Your task to perform on an android device: Find coffee shops on Maps Image 0: 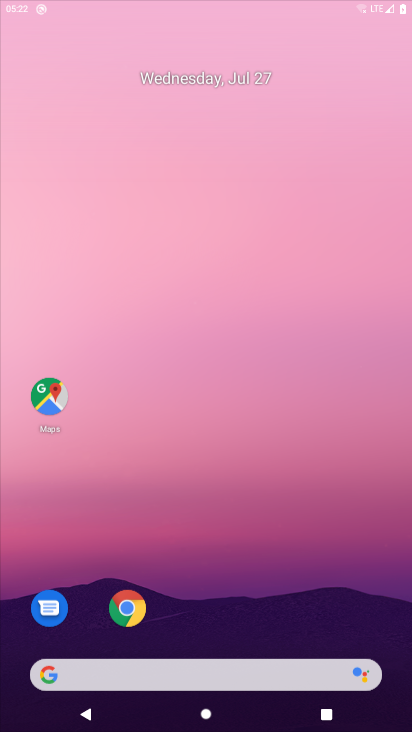
Step 0: press home button
Your task to perform on an android device: Find coffee shops on Maps Image 1: 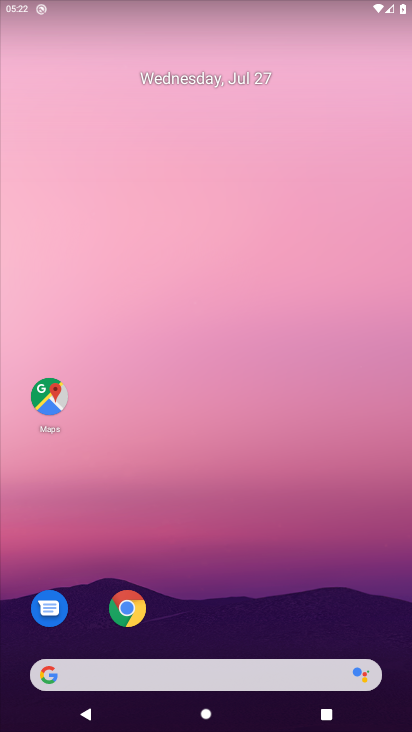
Step 1: click (58, 412)
Your task to perform on an android device: Find coffee shops on Maps Image 2: 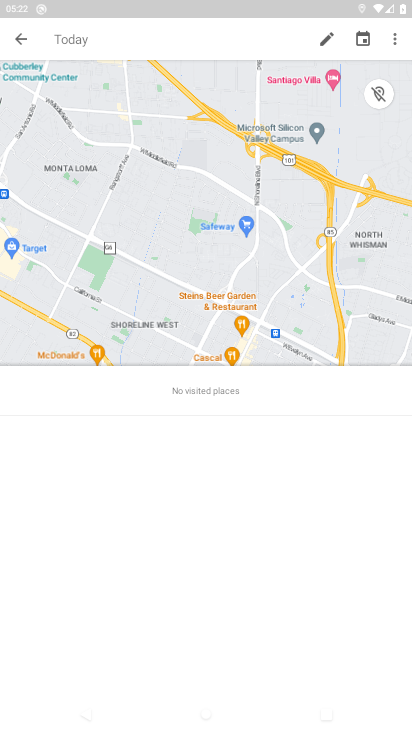
Step 2: click (15, 41)
Your task to perform on an android device: Find coffee shops on Maps Image 3: 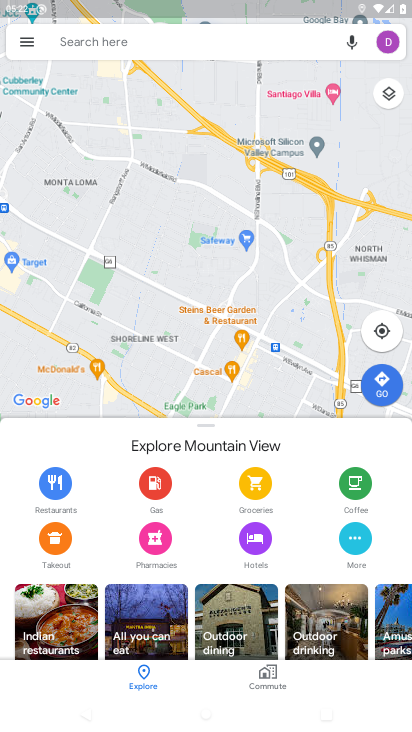
Step 3: click (126, 35)
Your task to perform on an android device: Find coffee shops on Maps Image 4: 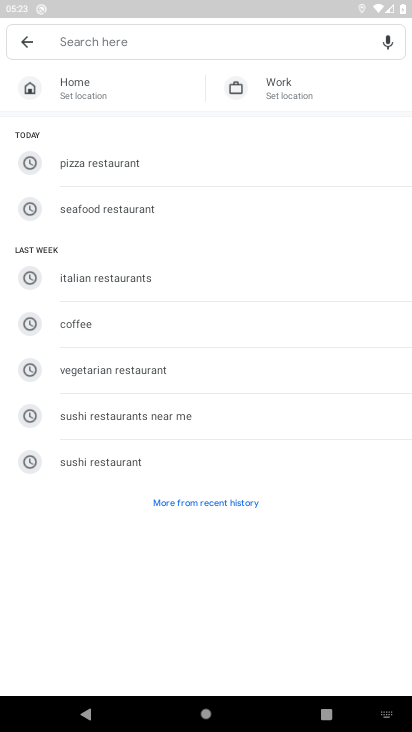
Step 4: press enter
Your task to perform on an android device: Find coffee shops on Maps Image 5: 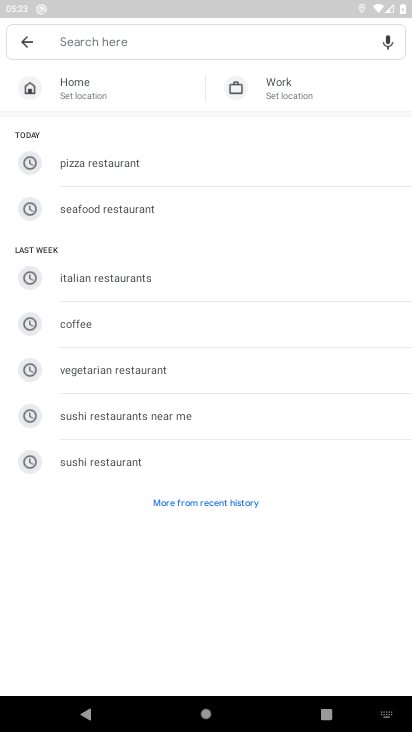
Step 5: type " coffee shops"
Your task to perform on an android device: Find coffee shops on Maps Image 6: 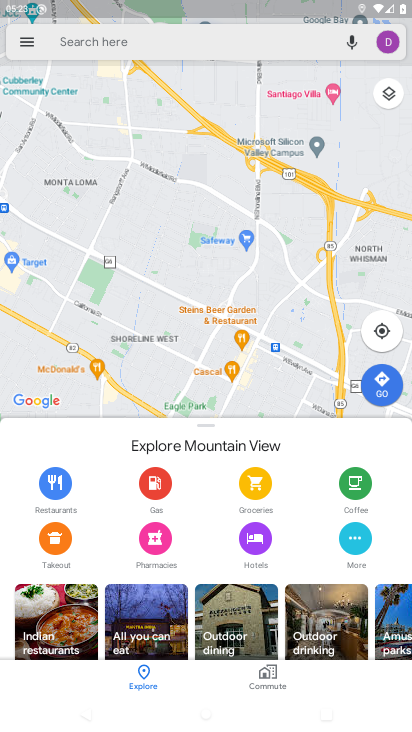
Step 6: click (119, 46)
Your task to perform on an android device: Find coffee shops on Maps Image 7: 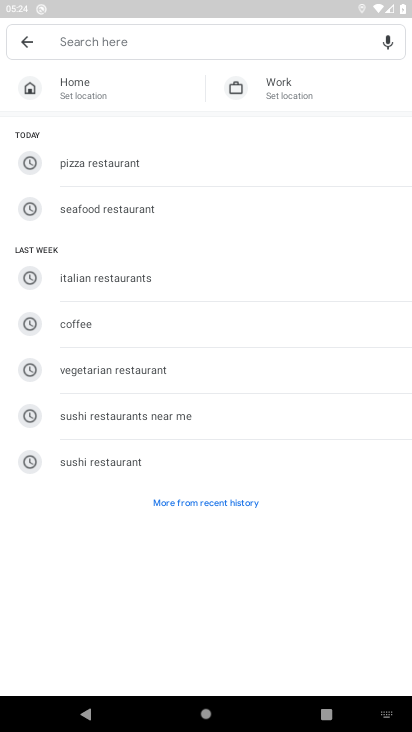
Step 7: press enter
Your task to perform on an android device: Find coffee shops on Maps Image 8: 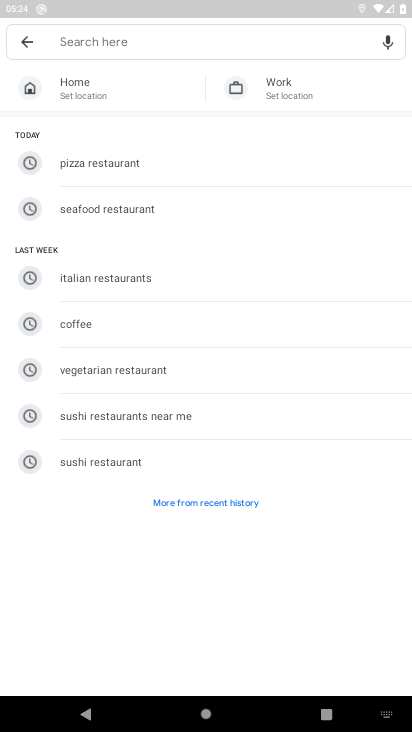
Step 8: type "coffee shops"
Your task to perform on an android device: Find coffee shops on Maps Image 9: 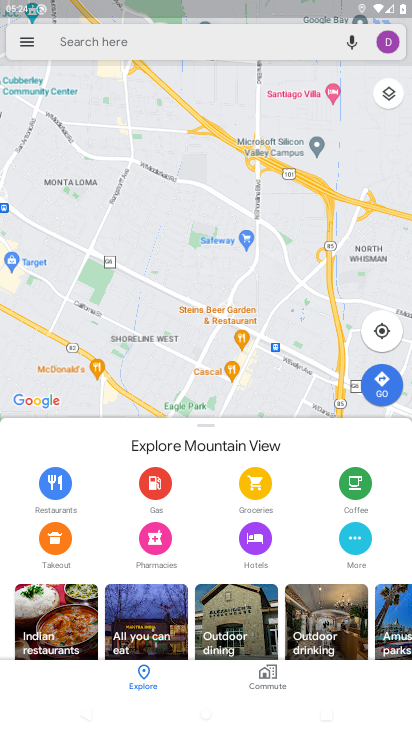
Step 9: click (208, 53)
Your task to perform on an android device: Find coffee shops on Maps Image 10: 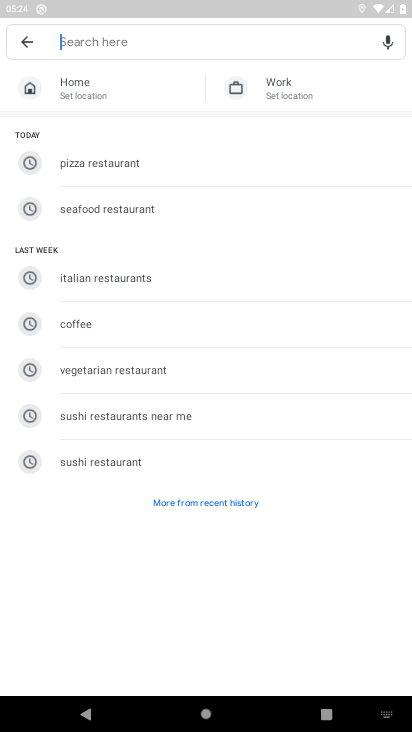
Step 10: press enter
Your task to perform on an android device: Find coffee shops on Maps Image 11: 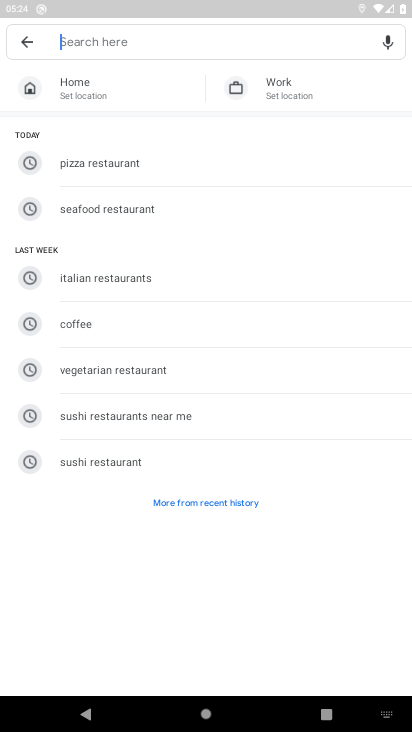
Step 11: type "coffee shops"
Your task to perform on an android device: Find coffee shops on Maps Image 12: 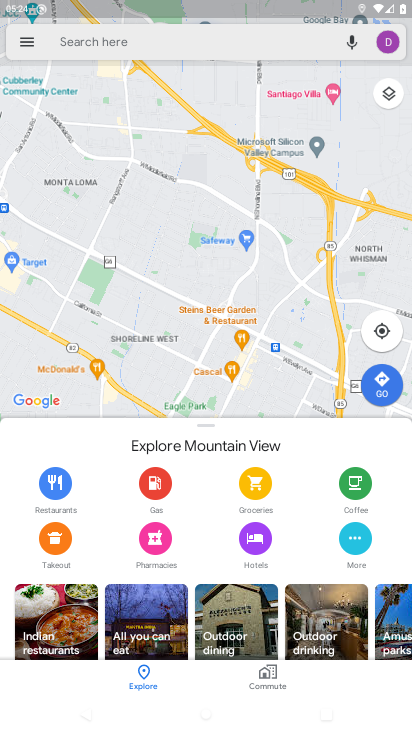
Step 12: task complete